Your task to perform on an android device: see sites visited before in the chrome app Image 0: 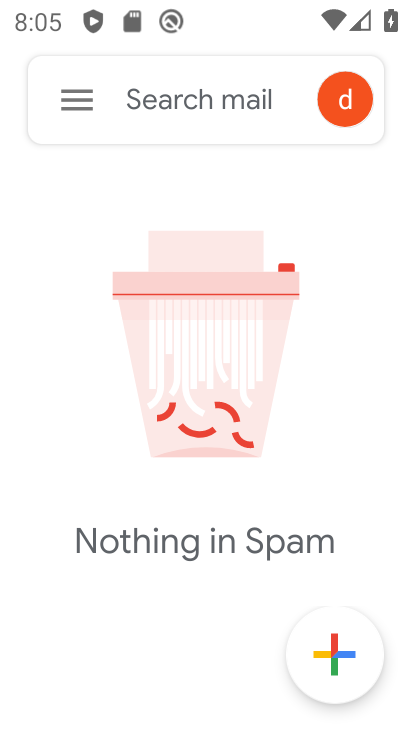
Step 0: press home button
Your task to perform on an android device: see sites visited before in the chrome app Image 1: 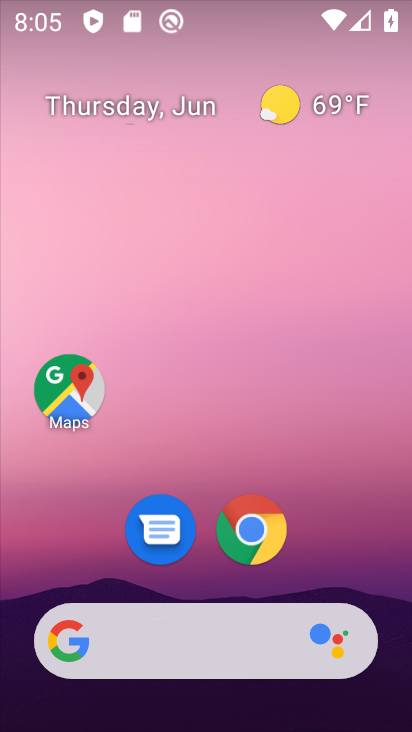
Step 1: click (276, 534)
Your task to perform on an android device: see sites visited before in the chrome app Image 2: 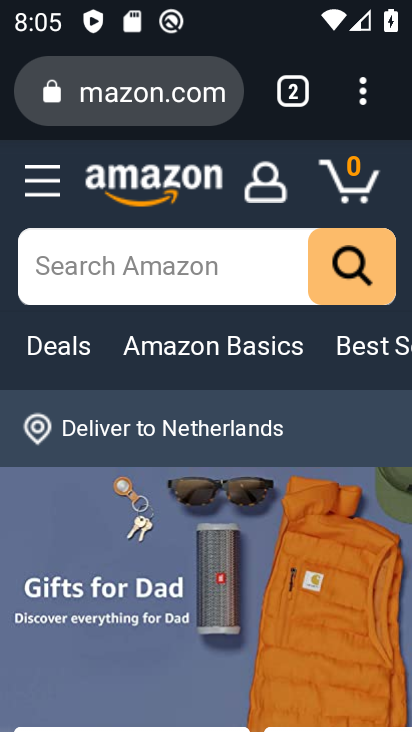
Step 2: click (374, 95)
Your task to perform on an android device: see sites visited before in the chrome app Image 3: 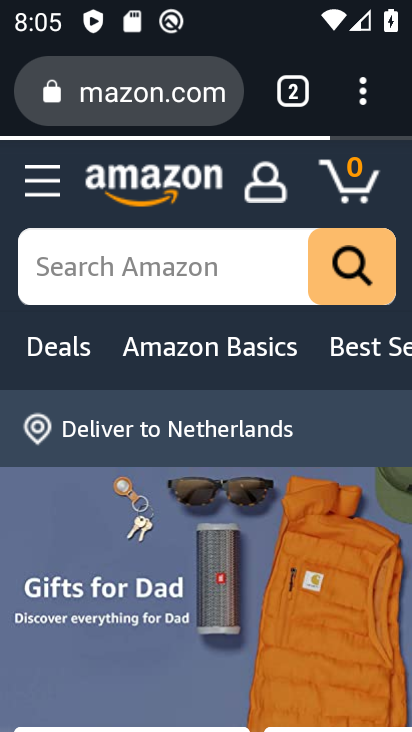
Step 3: task complete